Your task to perform on an android device: open sync settings in chrome Image 0: 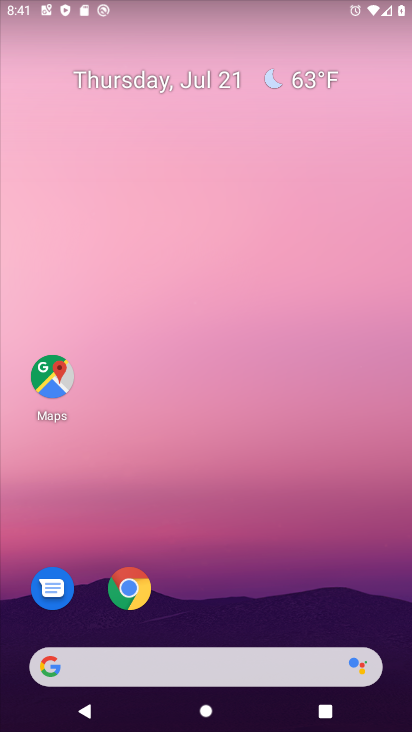
Step 0: click (129, 595)
Your task to perform on an android device: open sync settings in chrome Image 1: 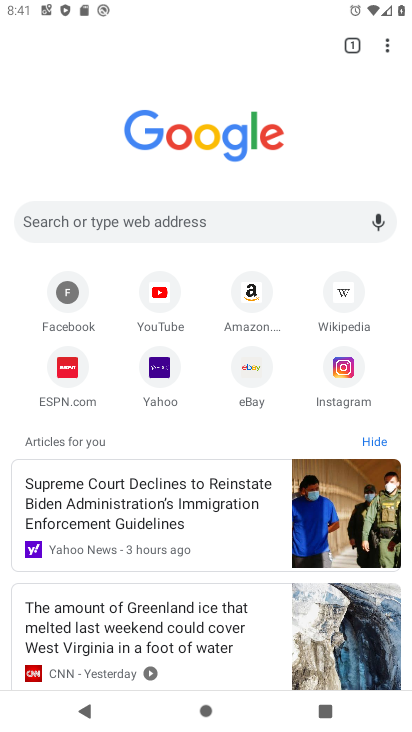
Step 1: click (380, 48)
Your task to perform on an android device: open sync settings in chrome Image 2: 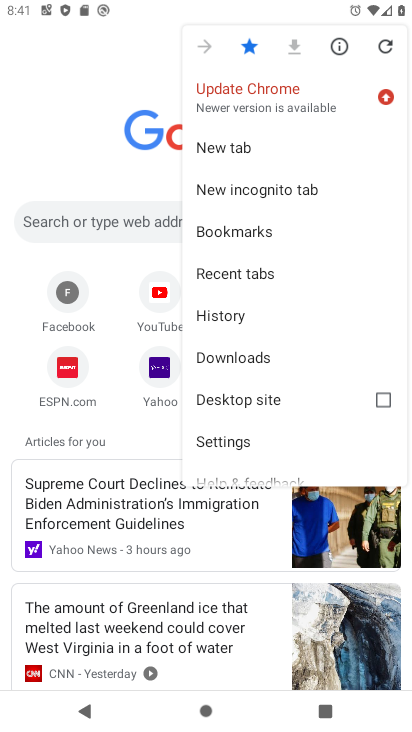
Step 2: click (274, 441)
Your task to perform on an android device: open sync settings in chrome Image 3: 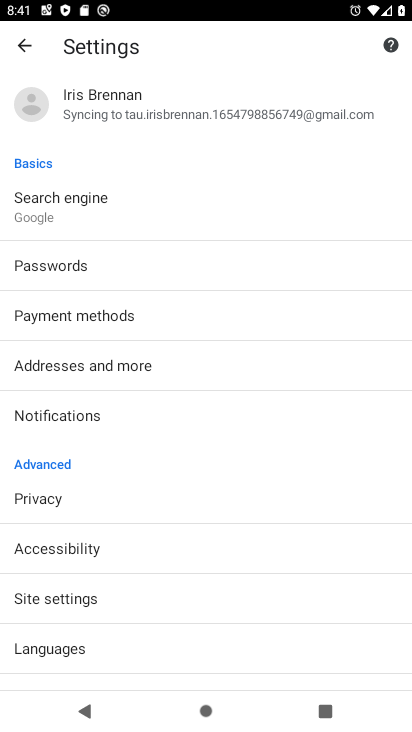
Step 3: click (98, 118)
Your task to perform on an android device: open sync settings in chrome Image 4: 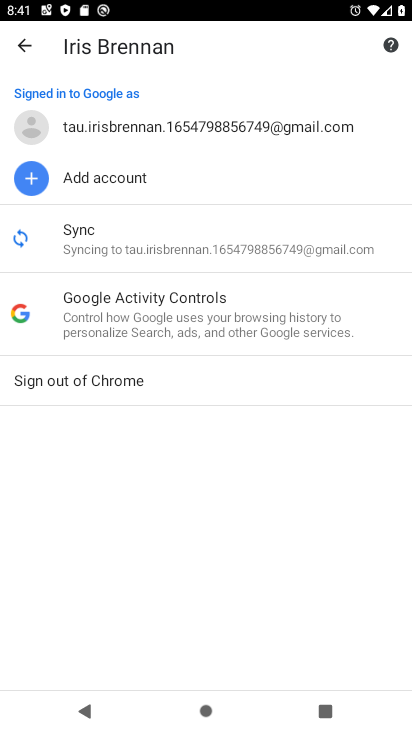
Step 4: click (122, 231)
Your task to perform on an android device: open sync settings in chrome Image 5: 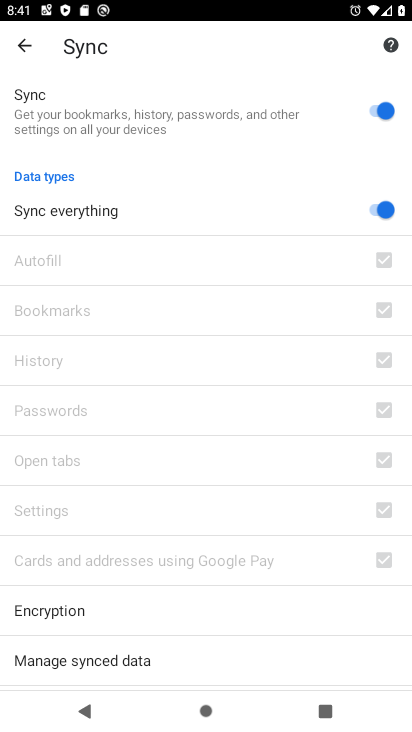
Step 5: task complete